Your task to perform on an android device: Open the phone app and click the voicemail tab. Image 0: 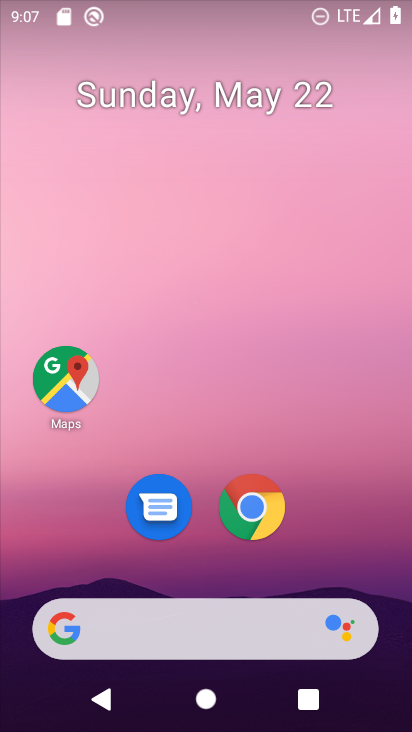
Step 0: drag from (168, 710) to (218, 91)
Your task to perform on an android device: Open the phone app and click the voicemail tab. Image 1: 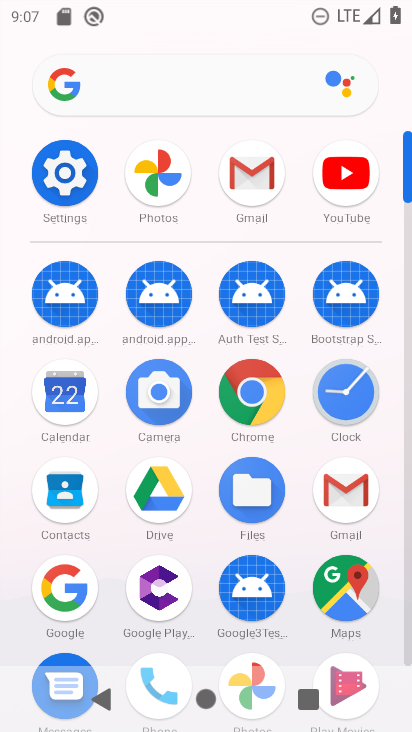
Step 1: click (158, 649)
Your task to perform on an android device: Open the phone app and click the voicemail tab. Image 2: 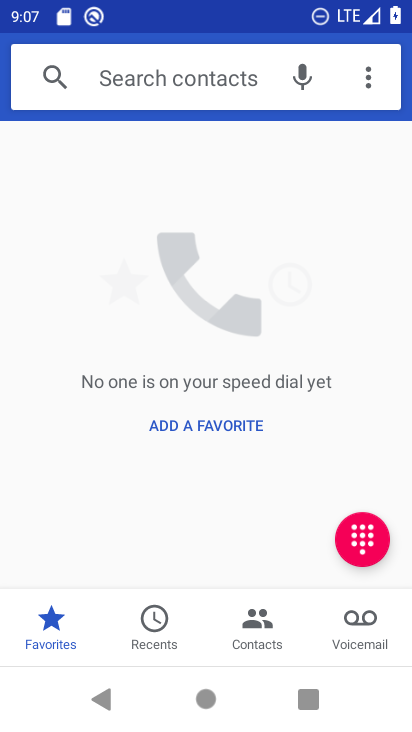
Step 2: click (356, 633)
Your task to perform on an android device: Open the phone app and click the voicemail tab. Image 3: 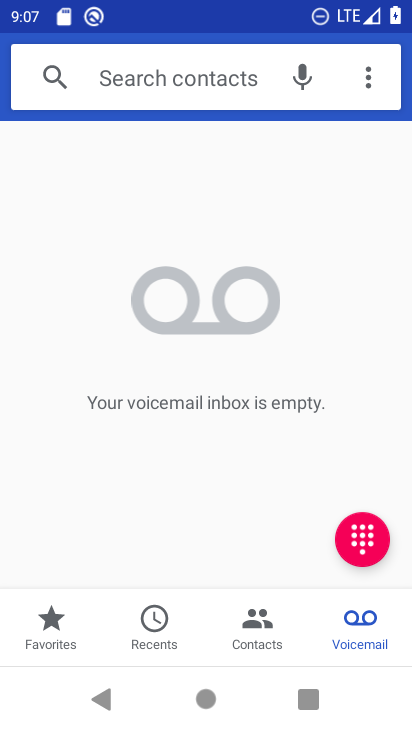
Step 3: task complete